Your task to perform on an android device: open a new tab in the chrome app Image 0: 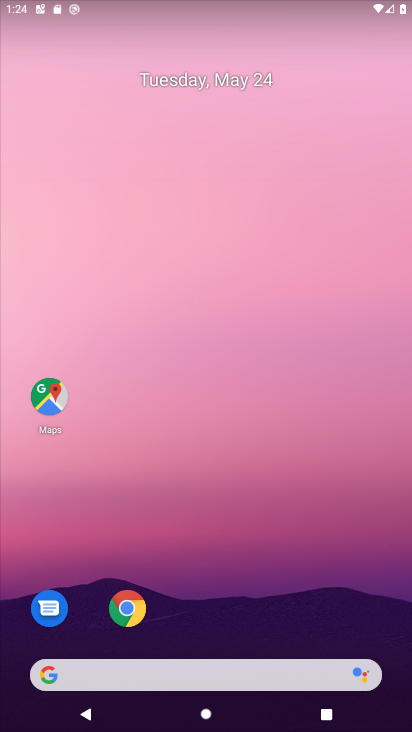
Step 0: click (139, 613)
Your task to perform on an android device: open a new tab in the chrome app Image 1: 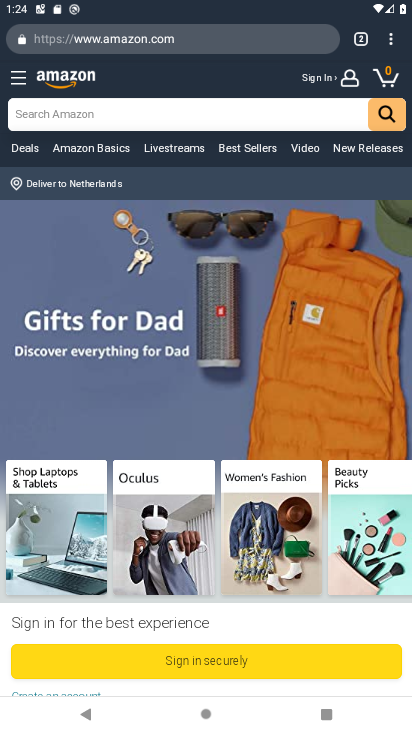
Step 1: click (359, 33)
Your task to perform on an android device: open a new tab in the chrome app Image 2: 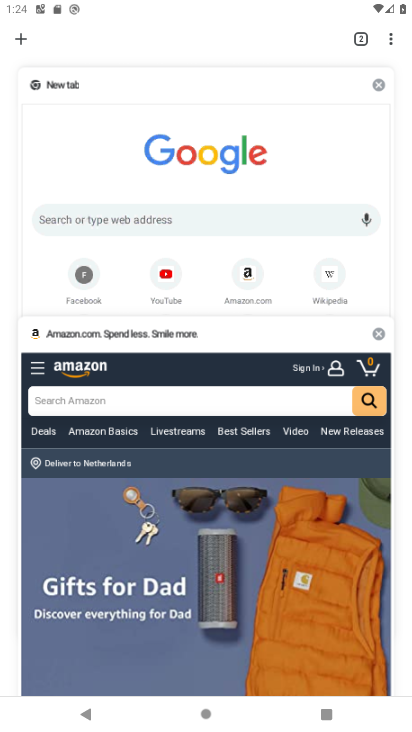
Step 2: click (28, 43)
Your task to perform on an android device: open a new tab in the chrome app Image 3: 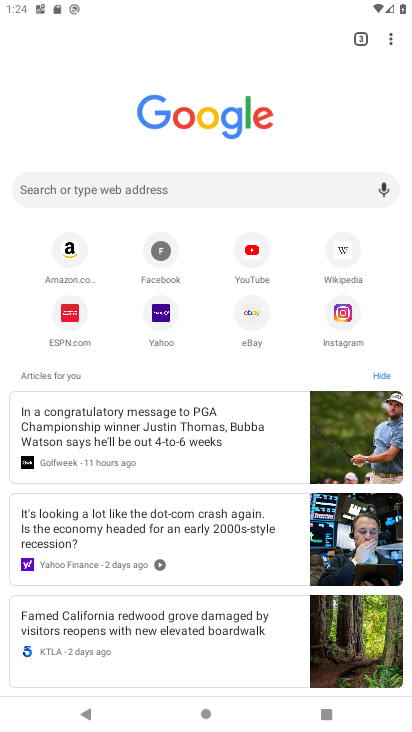
Step 3: task complete